Your task to perform on an android device: turn notification dots off Image 0: 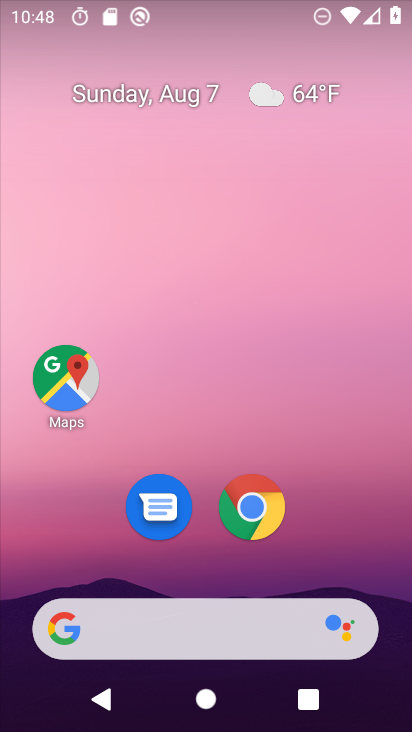
Step 0: drag from (323, 542) to (366, 55)
Your task to perform on an android device: turn notification dots off Image 1: 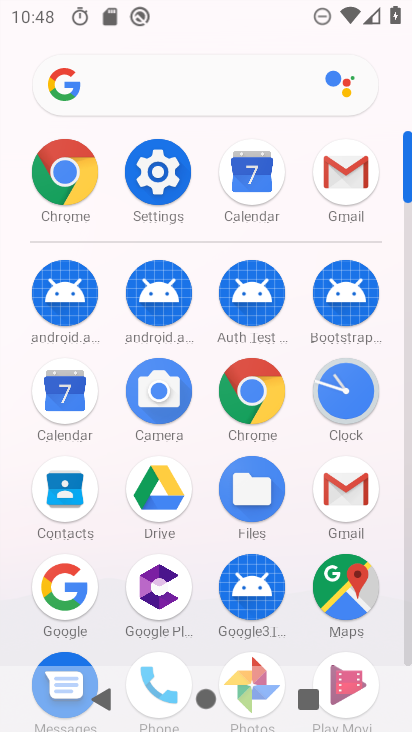
Step 1: click (171, 169)
Your task to perform on an android device: turn notification dots off Image 2: 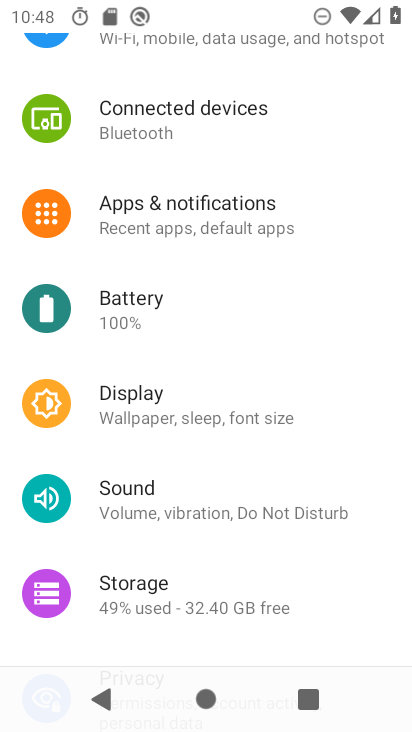
Step 2: click (159, 213)
Your task to perform on an android device: turn notification dots off Image 3: 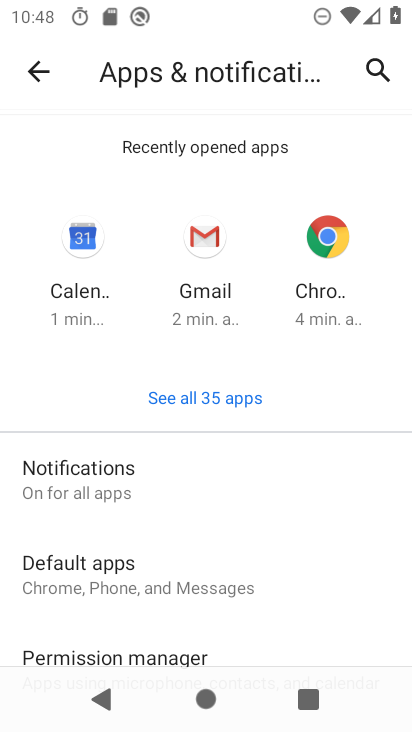
Step 3: drag from (284, 551) to (303, 41)
Your task to perform on an android device: turn notification dots off Image 4: 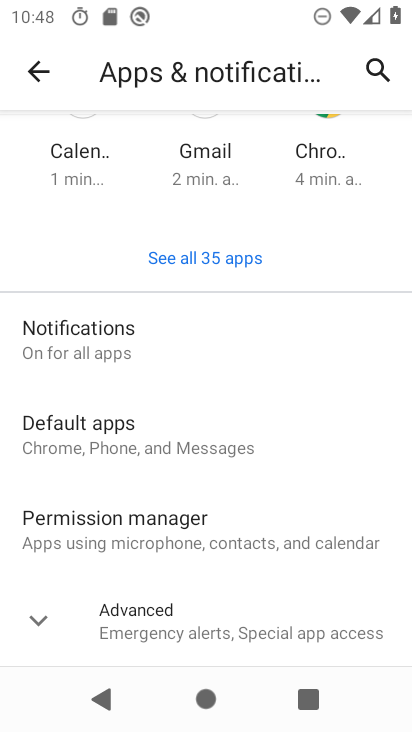
Step 4: click (86, 344)
Your task to perform on an android device: turn notification dots off Image 5: 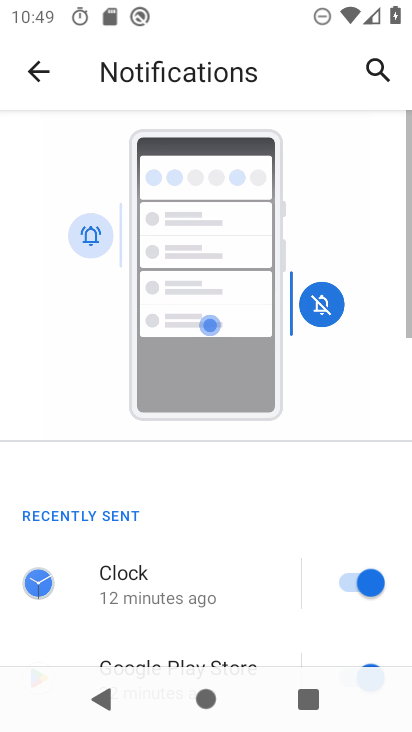
Step 5: drag from (209, 570) to (256, 70)
Your task to perform on an android device: turn notification dots off Image 6: 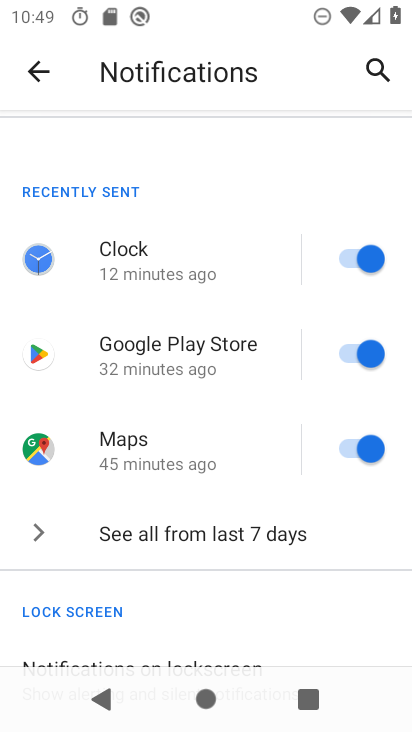
Step 6: drag from (226, 611) to (273, 60)
Your task to perform on an android device: turn notification dots off Image 7: 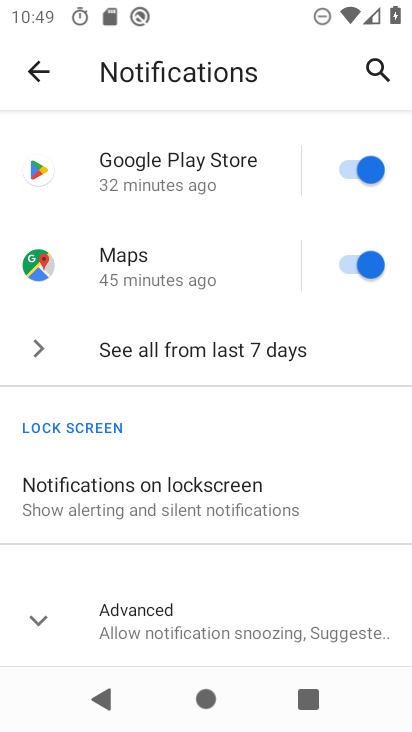
Step 7: drag from (241, 583) to (253, 232)
Your task to perform on an android device: turn notification dots off Image 8: 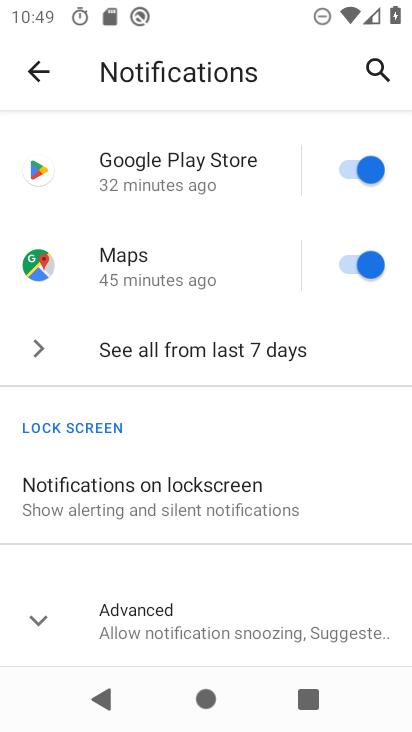
Step 8: click (112, 632)
Your task to perform on an android device: turn notification dots off Image 9: 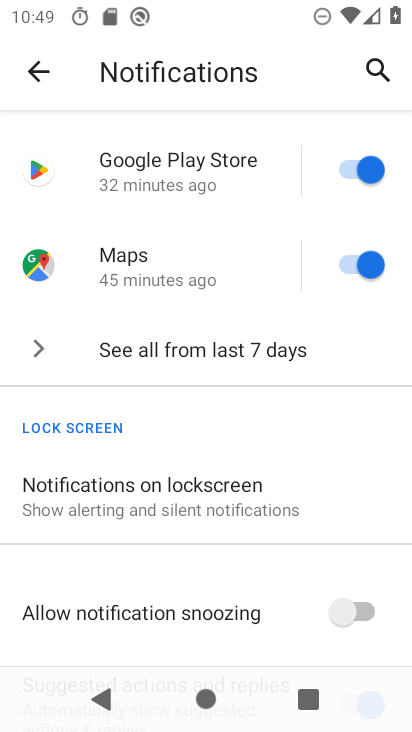
Step 9: drag from (313, 554) to (307, 192)
Your task to perform on an android device: turn notification dots off Image 10: 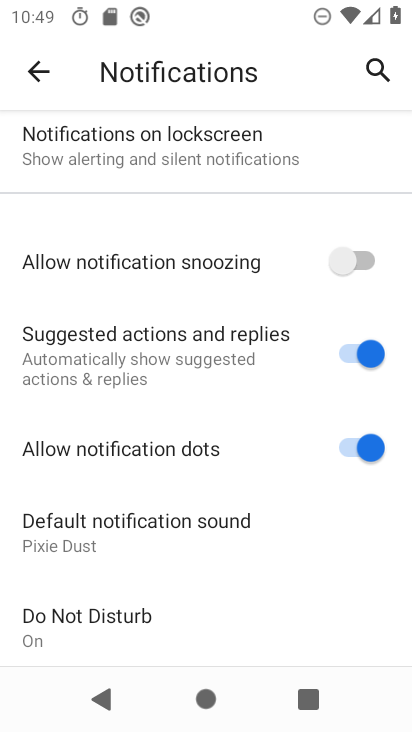
Step 10: click (359, 445)
Your task to perform on an android device: turn notification dots off Image 11: 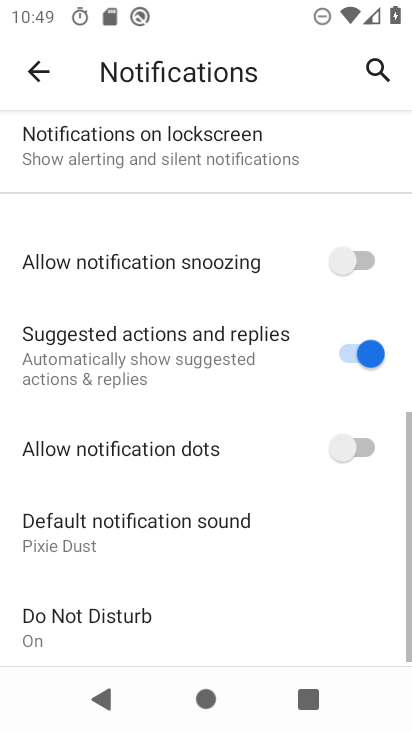
Step 11: task complete